Your task to perform on an android device: Go to eBay Image 0: 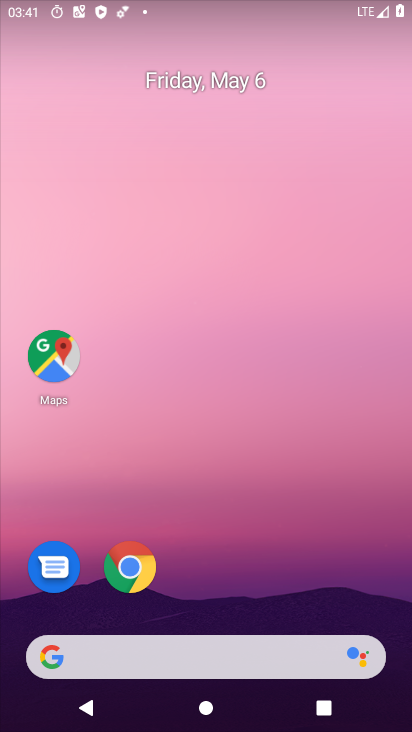
Step 0: click (134, 571)
Your task to perform on an android device: Go to eBay Image 1: 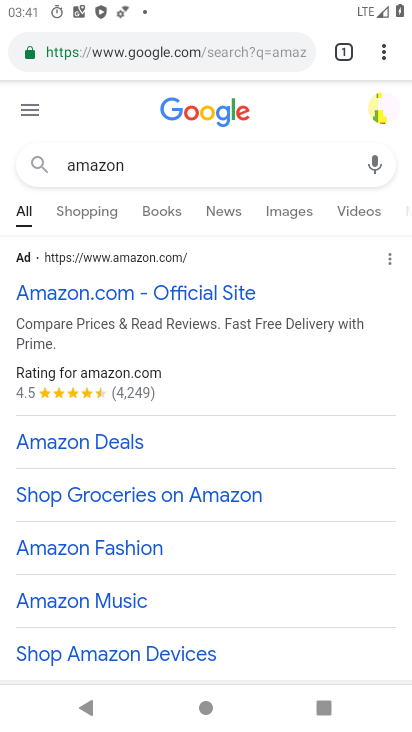
Step 1: click (126, 46)
Your task to perform on an android device: Go to eBay Image 2: 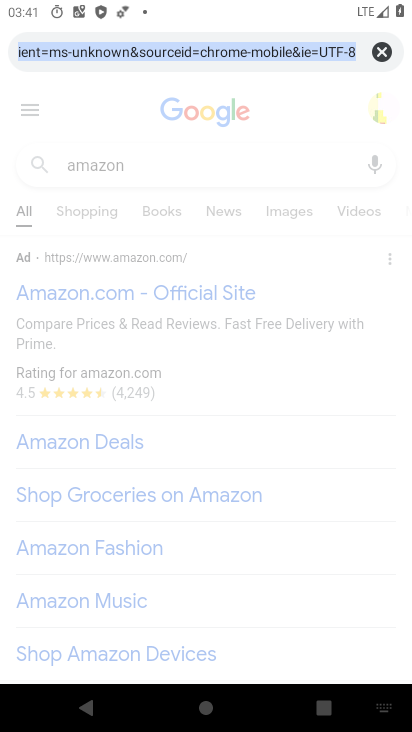
Step 2: click (116, 60)
Your task to perform on an android device: Go to eBay Image 3: 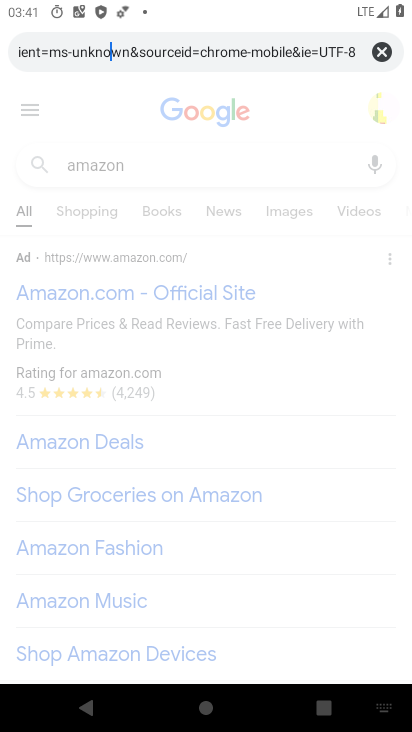
Step 3: click (382, 50)
Your task to perform on an android device: Go to eBay Image 4: 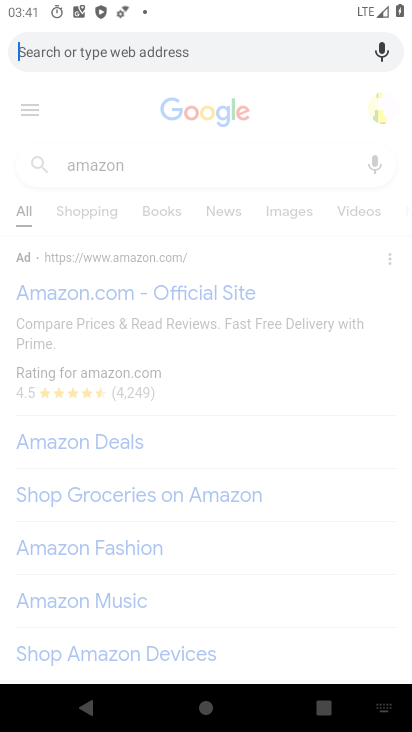
Step 4: type "ebay"
Your task to perform on an android device: Go to eBay Image 5: 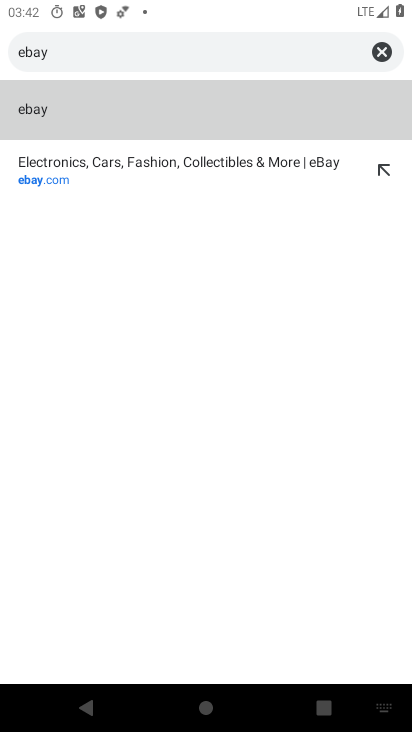
Step 5: click (88, 104)
Your task to perform on an android device: Go to eBay Image 6: 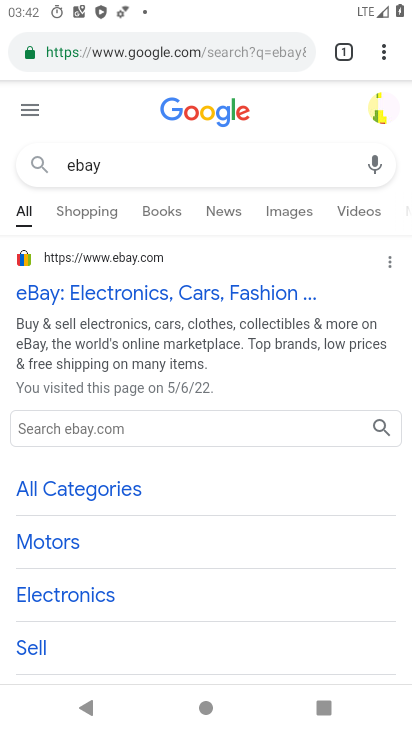
Step 6: task complete